Your task to perform on an android device: Open wifi settings Image 0: 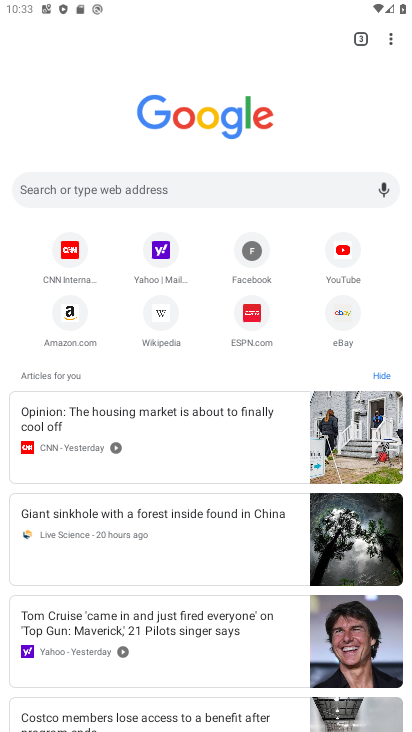
Step 0: press home button
Your task to perform on an android device: Open wifi settings Image 1: 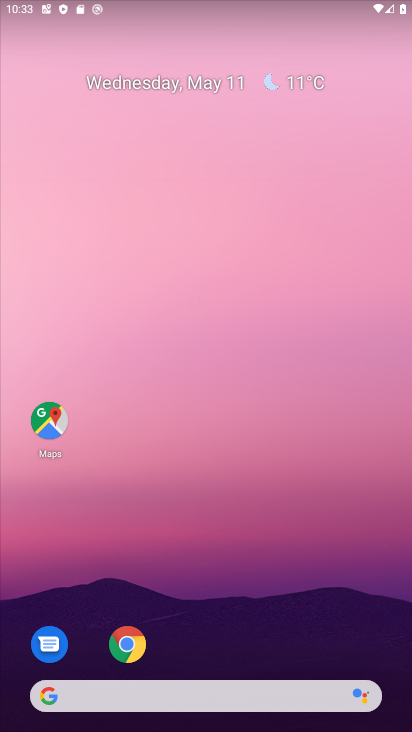
Step 1: drag from (294, 635) to (338, 13)
Your task to perform on an android device: Open wifi settings Image 2: 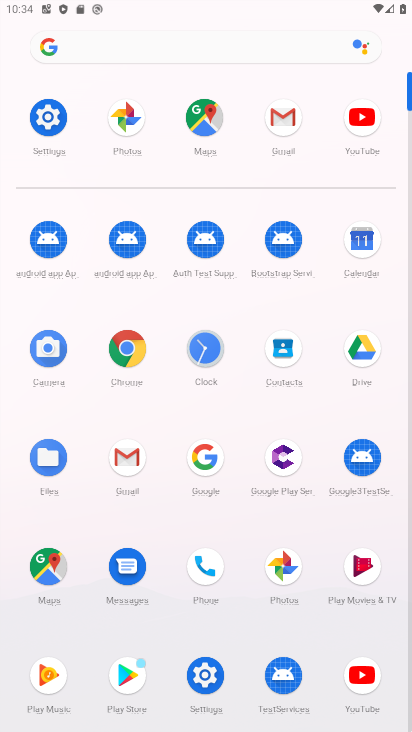
Step 2: click (50, 123)
Your task to perform on an android device: Open wifi settings Image 3: 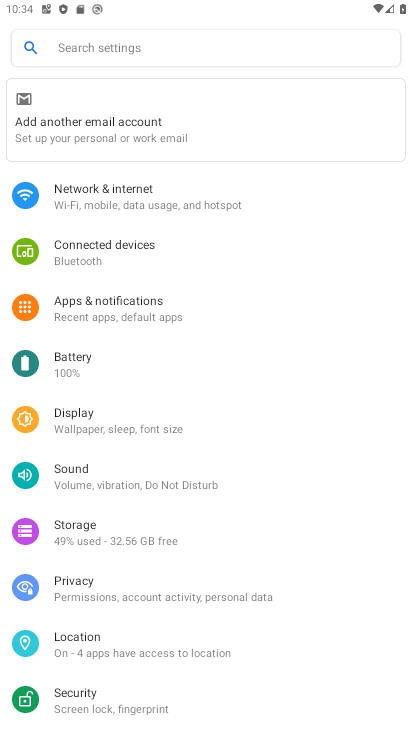
Step 3: click (99, 212)
Your task to perform on an android device: Open wifi settings Image 4: 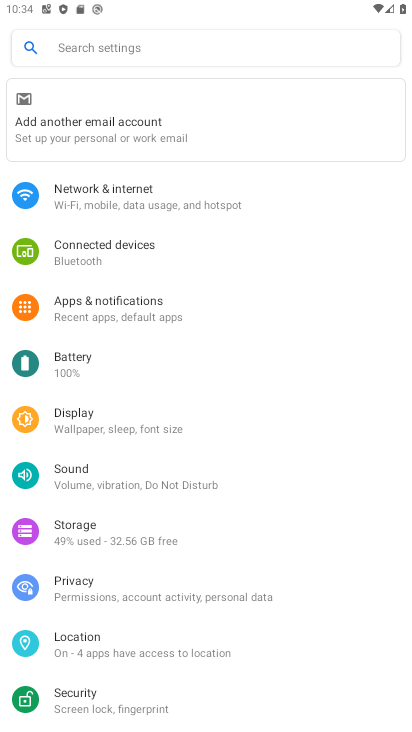
Step 4: click (113, 194)
Your task to perform on an android device: Open wifi settings Image 5: 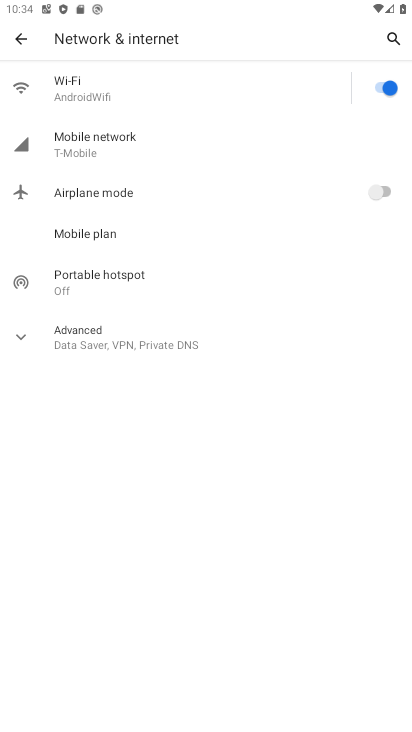
Step 5: click (67, 93)
Your task to perform on an android device: Open wifi settings Image 6: 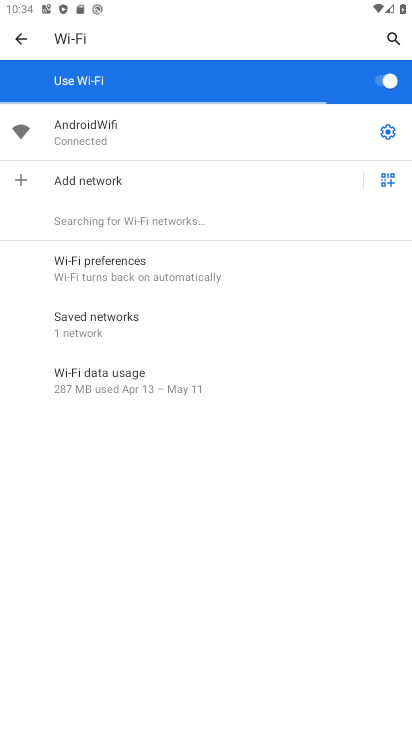
Step 6: task complete